Your task to perform on an android device: change the clock display to show seconds Image 0: 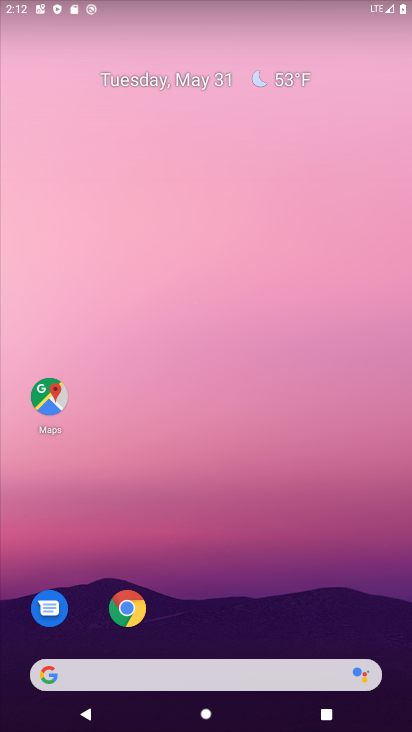
Step 0: press home button
Your task to perform on an android device: change the clock display to show seconds Image 1: 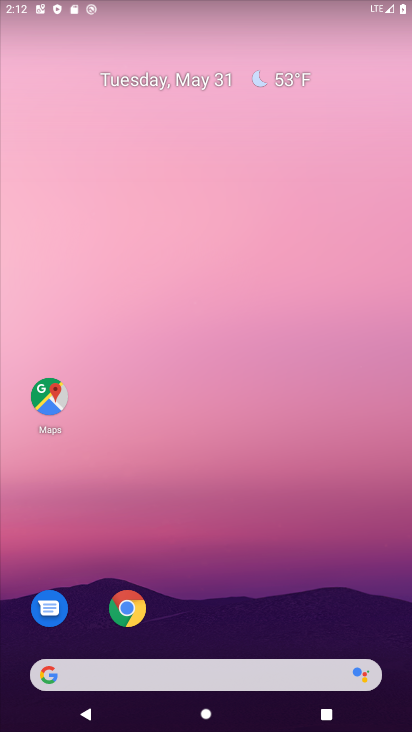
Step 1: drag from (288, 514) to (300, 84)
Your task to perform on an android device: change the clock display to show seconds Image 2: 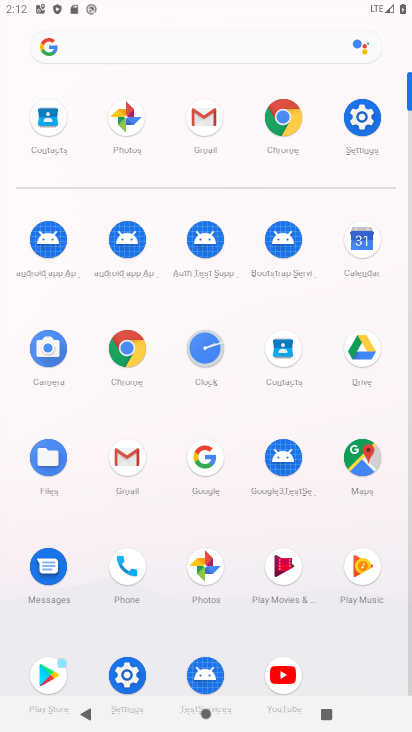
Step 2: click (352, 122)
Your task to perform on an android device: change the clock display to show seconds Image 3: 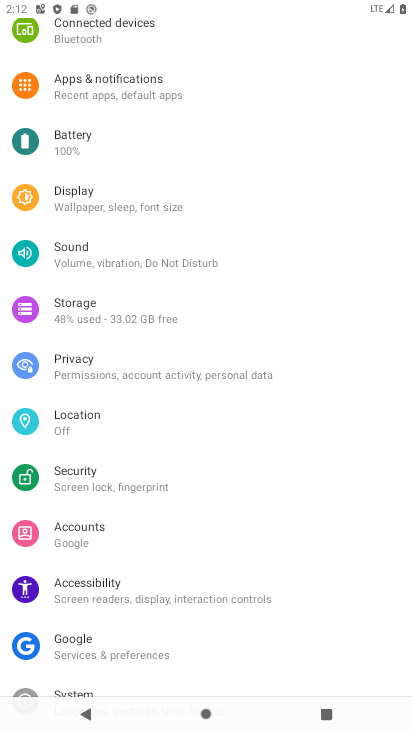
Step 3: press home button
Your task to perform on an android device: change the clock display to show seconds Image 4: 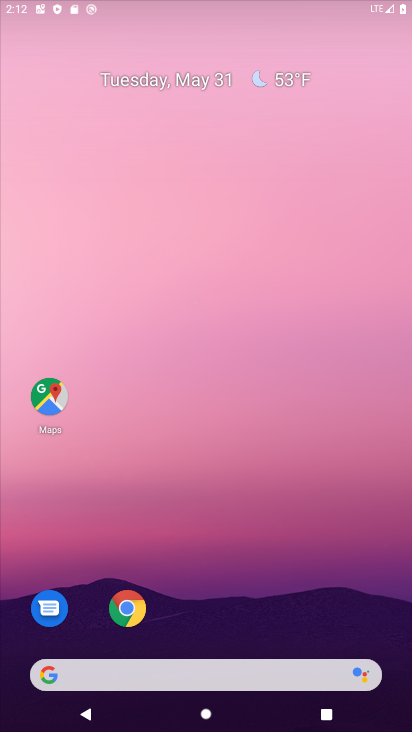
Step 4: drag from (317, 602) to (319, 20)
Your task to perform on an android device: change the clock display to show seconds Image 5: 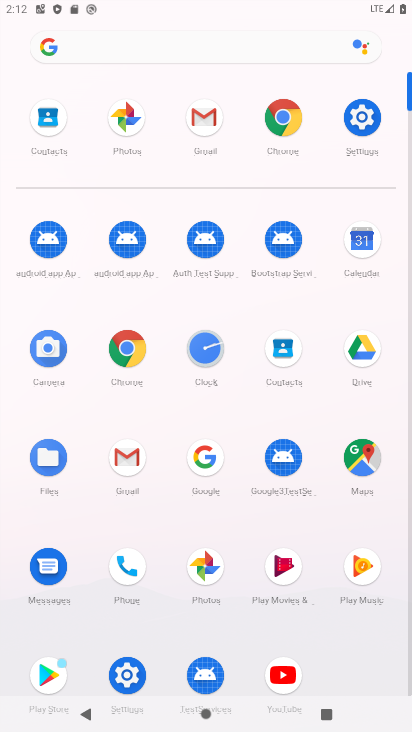
Step 5: click (204, 352)
Your task to perform on an android device: change the clock display to show seconds Image 6: 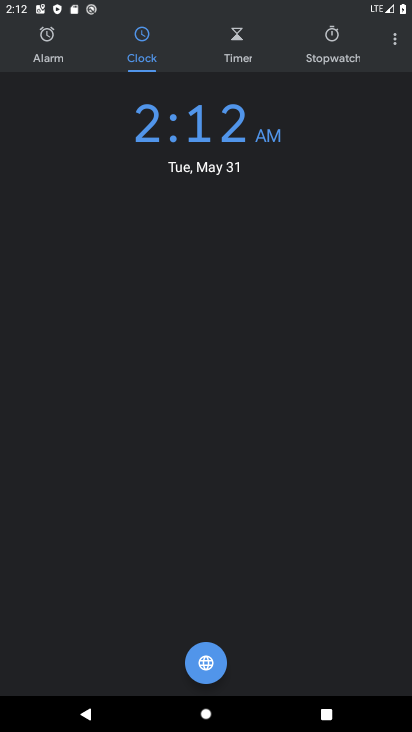
Step 6: click (393, 42)
Your task to perform on an android device: change the clock display to show seconds Image 7: 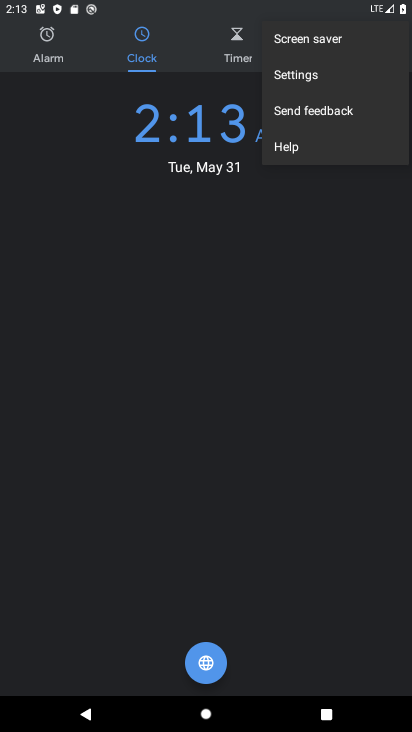
Step 7: click (304, 85)
Your task to perform on an android device: change the clock display to show seconds Image 8: 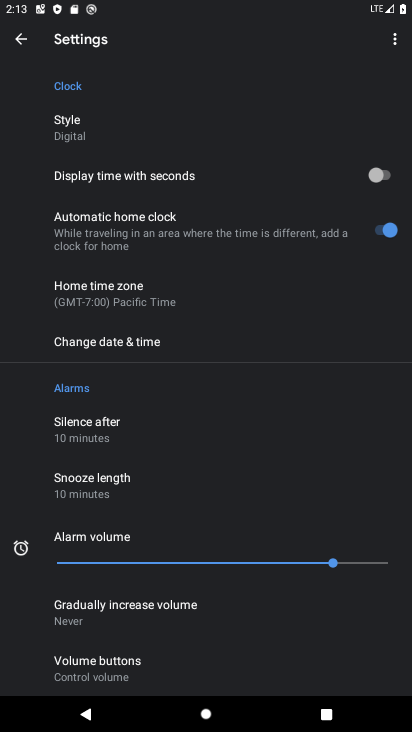
Step 8: click (383, 171)
Your task to perform on an android device: change the clock display to show seconds Image 9: 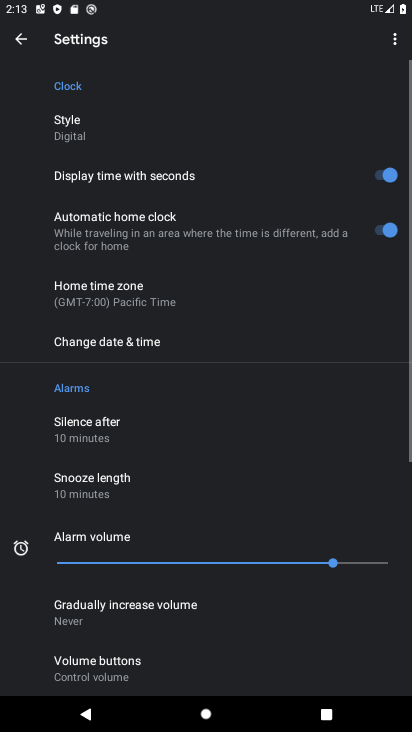
Step 9: task complete